Your task to perform on an android device: find which apps use the phone's location Image 0: 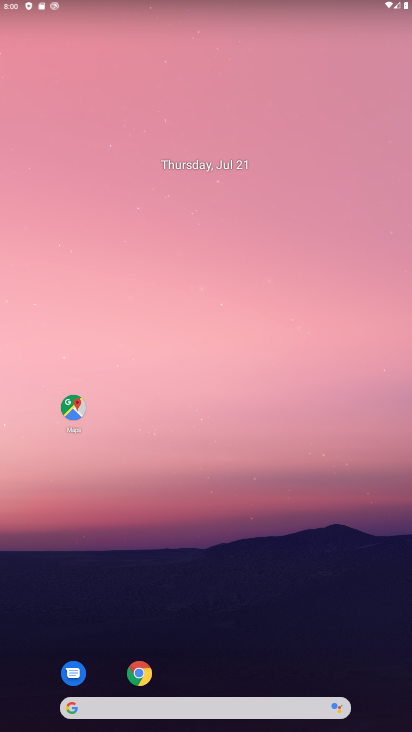
Step 0: drag from (193, 598) to (208, 55)
Your task to perform on an android device: find which apps use the phone's location Image 1: 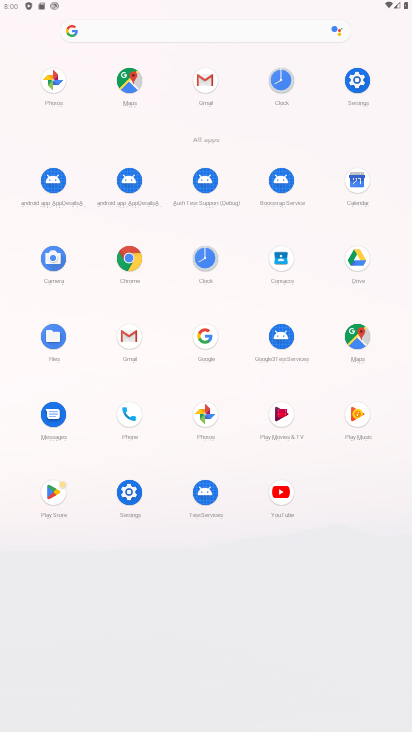
Step 1: click (360, 71)
Your task to perform on an android device: find which apps use the phone's location Image 2: 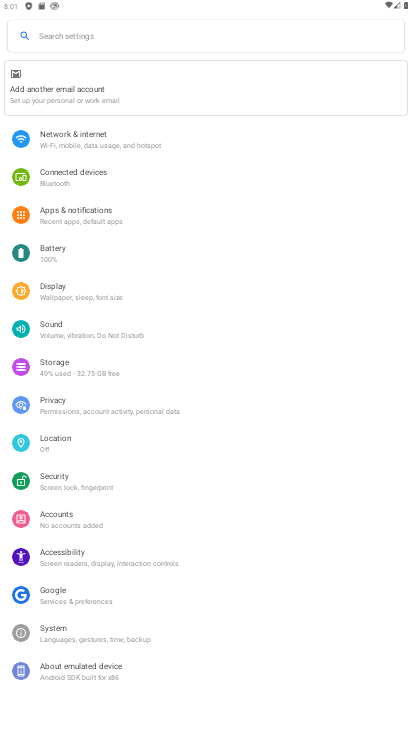
Step 2: click (147, 294)
Your task to perform on an android device: find which apps use the phone's location Image 3: 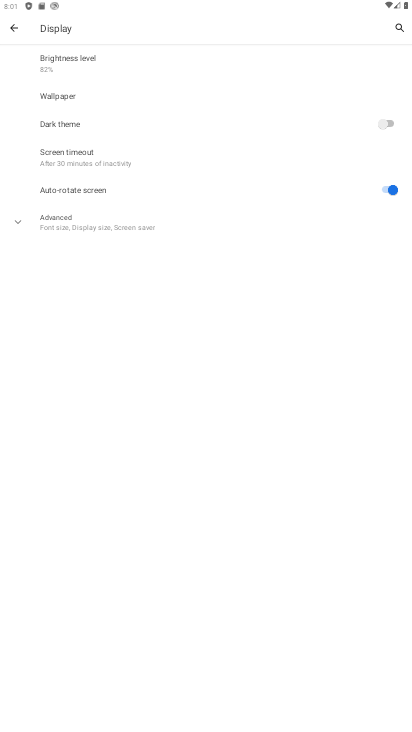
Step 3: click (104, 222)
Your task to perform on an android device: find which apps use the phone's location Image 4: 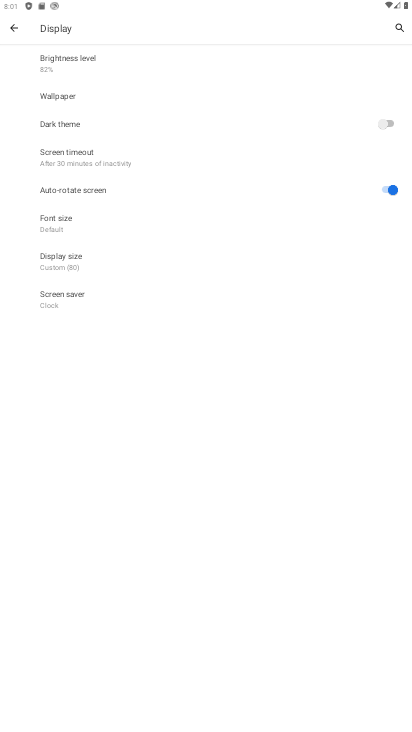
Step 4: click (51, 273)
Your task to perform on an android device: find which apps use the phone's location Image 5: 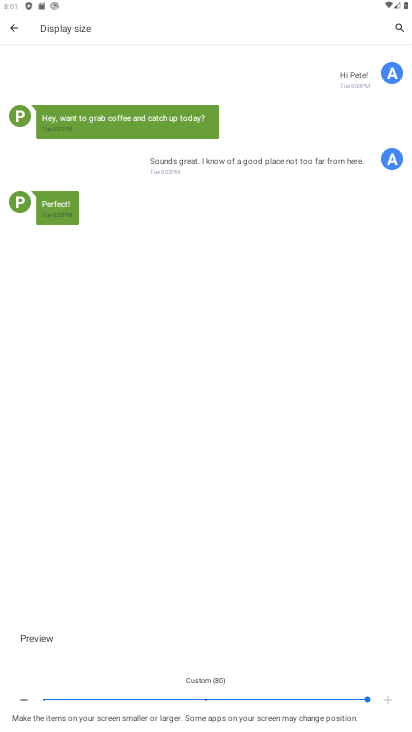
Step 5: click (201, 700)
Your task to perform on an android device: find which apps use the phone's location Image 6: 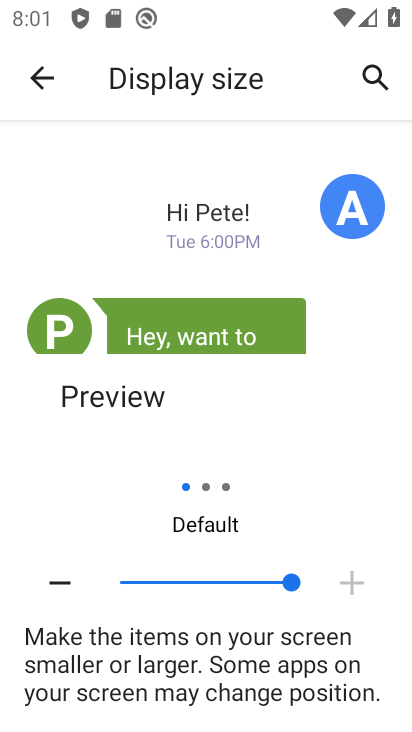
Step 6: click (37, 82)
Your task to perform on an android device: find which apps use the phone's location Image 7: 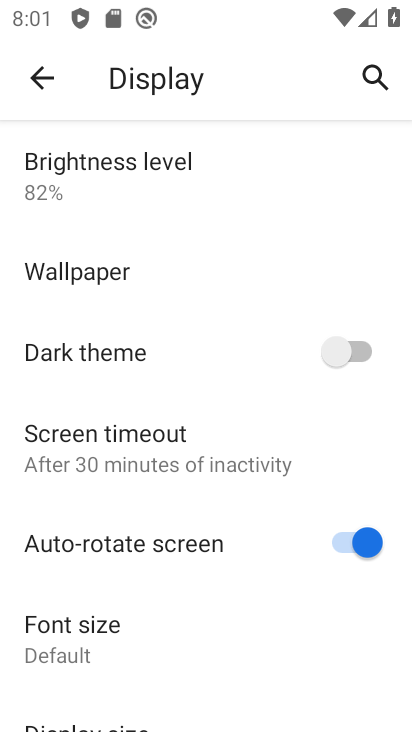
Step 7: click (34, 85)
Your task to perform on an android device: find which apps use the phone's location Image 8: 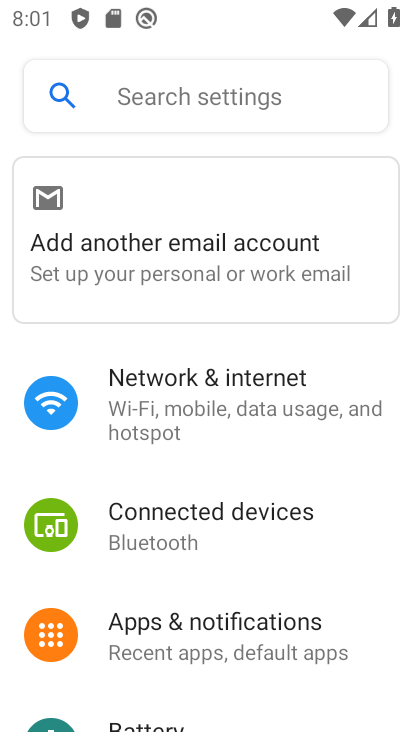
Step 8: drag from (176, 589) to (225, 327)
Your task to perform on an android device: find which apps use the phone's location Image 9: 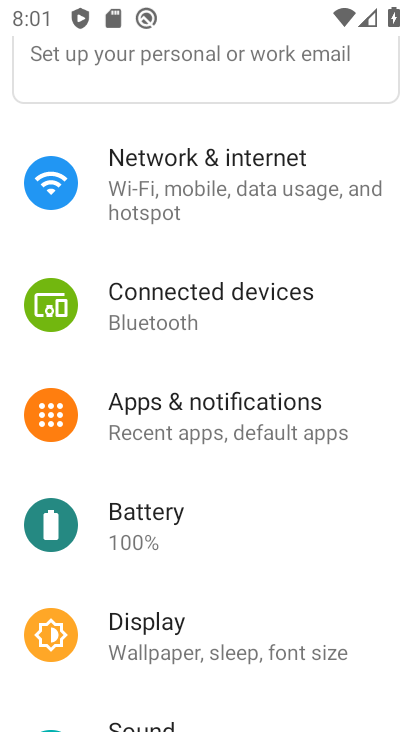
Step 9: drag from (188, 636) to (274, 88)
Your task to perform on an android device: find which apps use the phone's location Image 10: 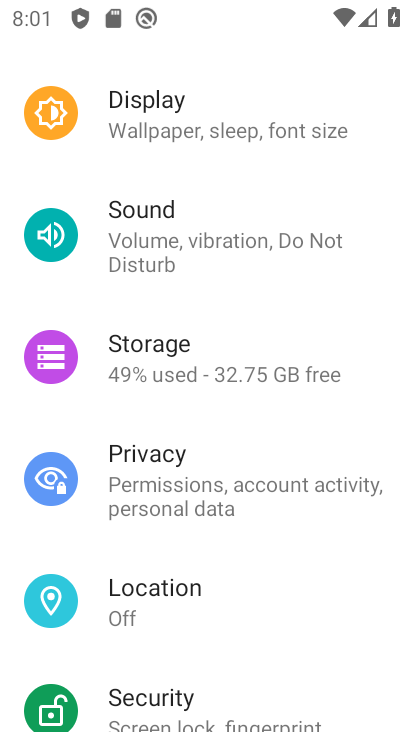
Step 10: click (187, 592)
Your task to perform on an android device: find which apps use the phone's location Image 11: 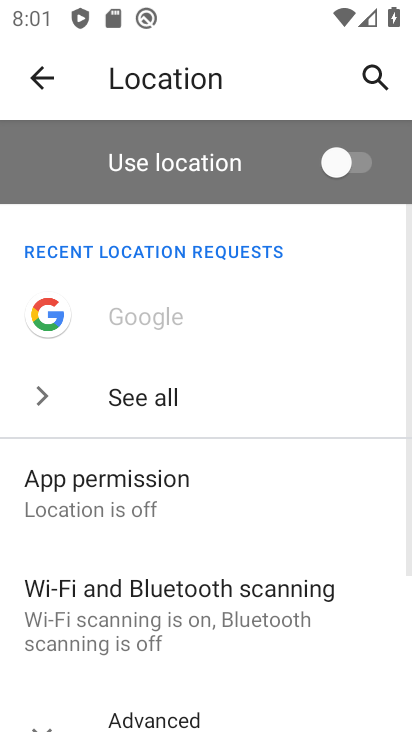
Step 11: click (186, 496)
Your task to perform on an android device: find which apps use the phone's location Image 12: 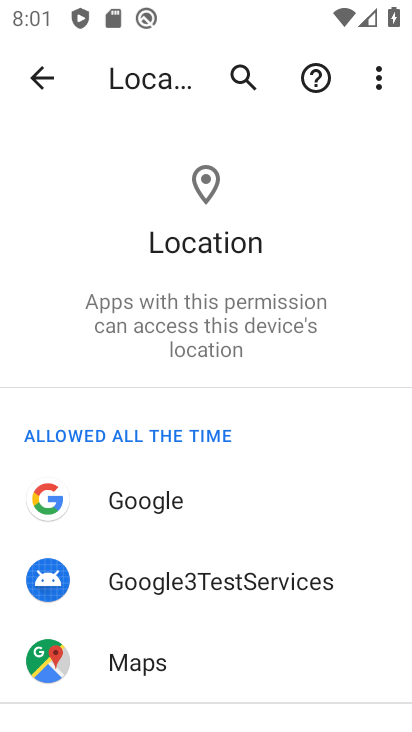
Step 12: task complete